Your task to perform on an android device: move an email to a new category in the gmail app Image 0: 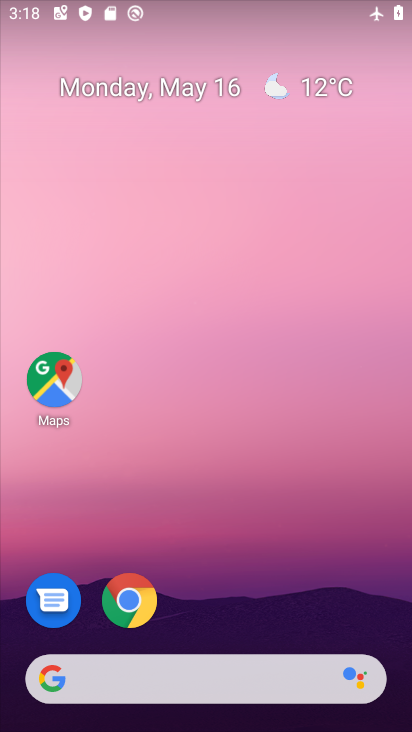
Step 0: drag from (214, 639) to (229, 12)
Your task to perform on an android device: move an email to a new category in the gmail app Image 1: 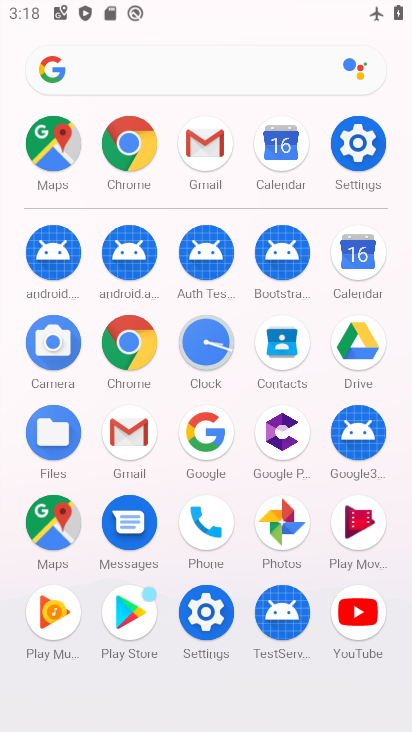
Step 1: click (112, 437)
Your task to perform on an android device: move an email to a new category in the gmail app Image 2: 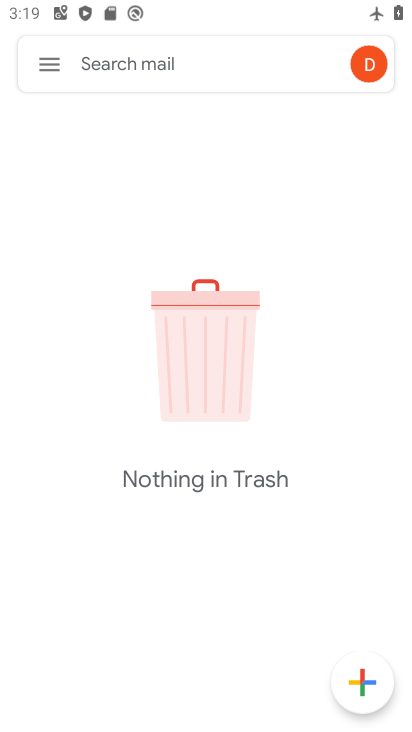
Step 2: click (36, 53)
Your task to perform on an android device: move an email to a new category in the gmail app Image 3: 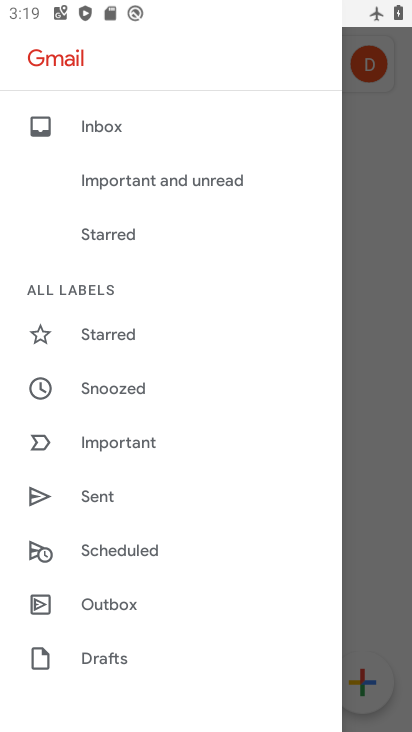
Step 3: click (113, 134)
Your task to perform on an android device: move an email to a new category in the gmail app Image 4: 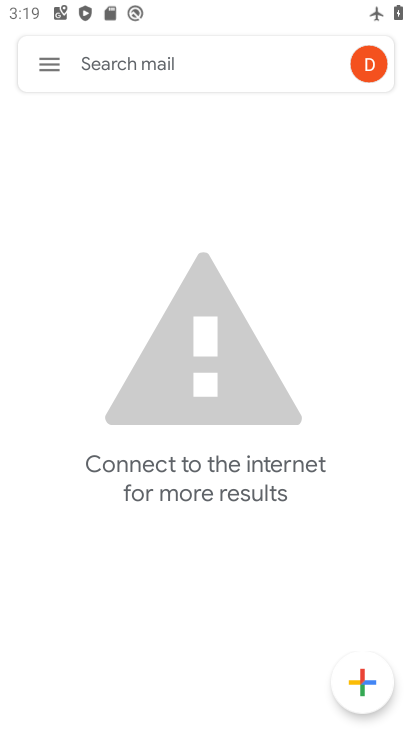
Step 4: task complete